Your task to perform on an android device: turn on the 24-hour format for clock Image 0: 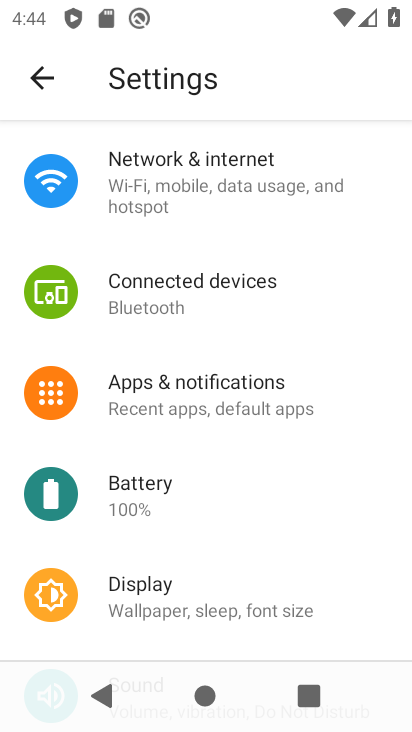
Step 0: press home button
Your task to perform on an android device: turn on the 24-hour format for clock Image 1: 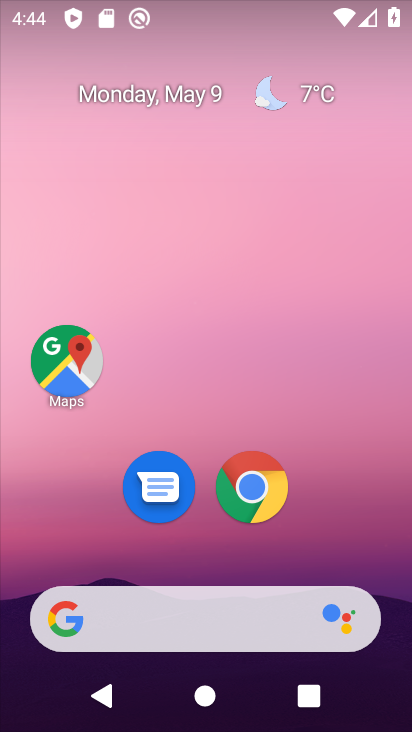
Step 1: drag from (205, 560) to (212, 29)
Your task to perform on an android device: turn on the 24-hour format for clock Image 2: 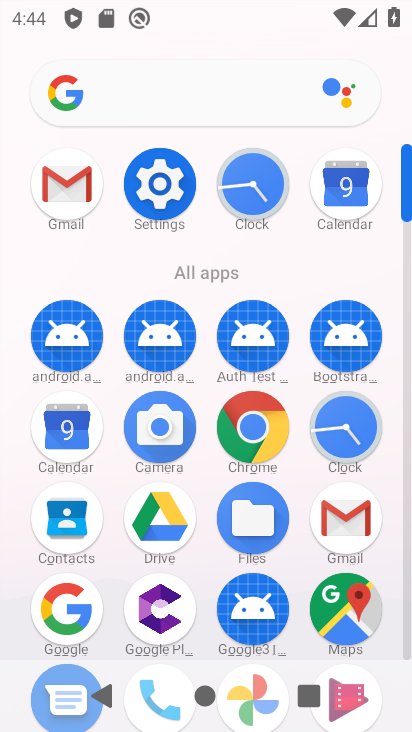
Step 2: click (336, 413)
Your task to perform on an android device: turn on the 24-hour format for clock Image 3: 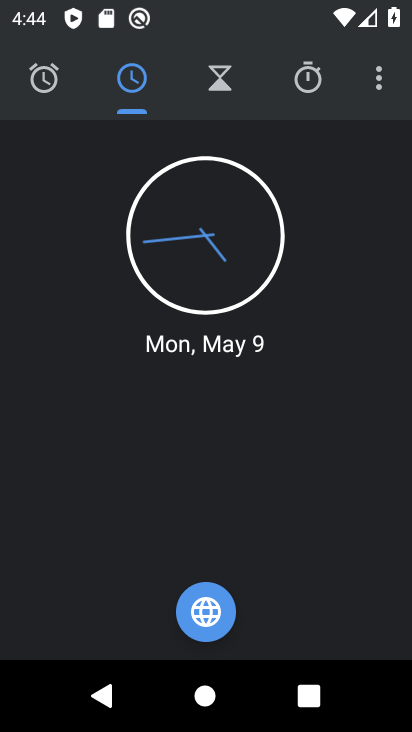
Step 3: click (379, 77)
Your task to perform on an android device: turn on the 24-hour format for clock Image 4: 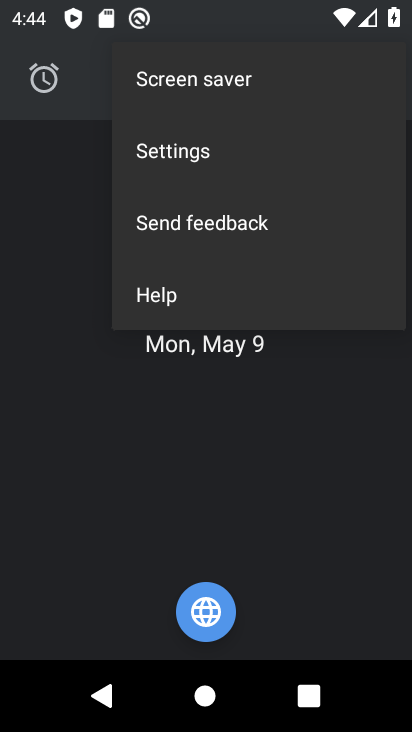
Step 4: click (172, 162)
Your task to perform on an android device: turn on the 24-hour format for clock Image 5: 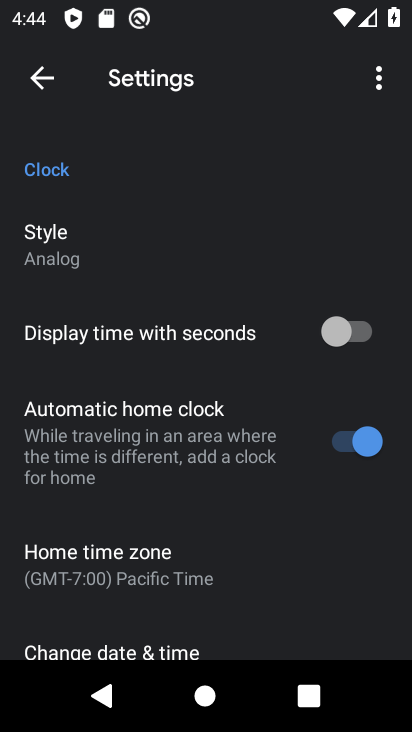
Step 5: drag from (197, 576) to (218, 326)
Your task to perform on an android device: turn on the 24-hour format for clock Image 6: 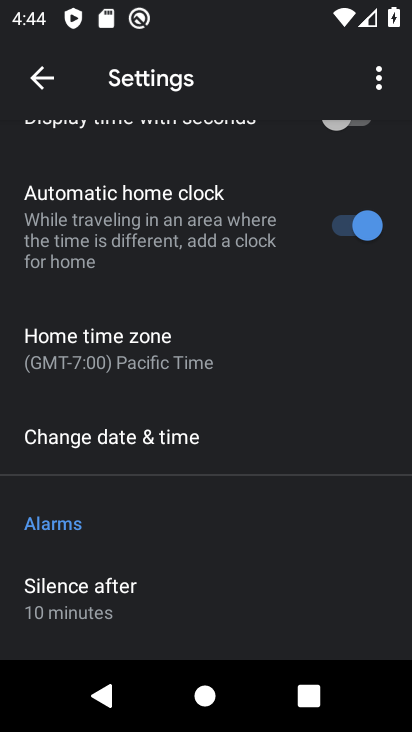
Step 6: click (201, 441)
Your task to perform on an android device: turn on the 24-hour format for clock Image 7: 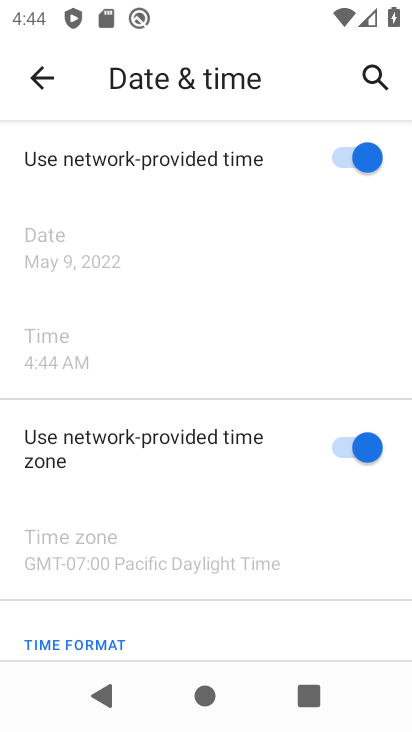
Step 7: drag from (210, 591) to (188, 245)
Your task to perform on an android device: turn on the 24-hour format for clock Image 8: 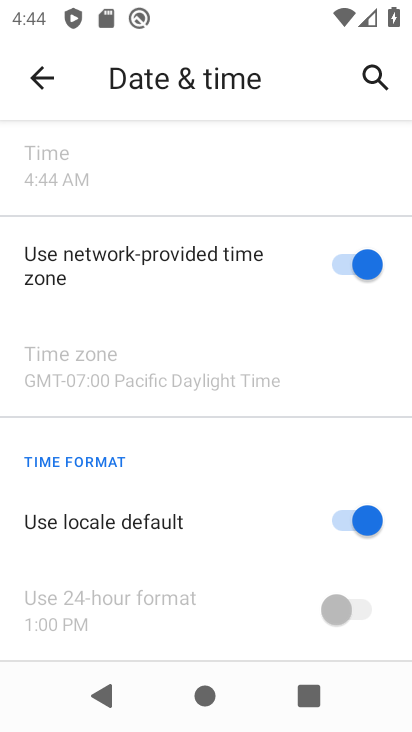
Step 8: click (338, 513)
Your task to perform on an android device: turn on the 24-hour format for clock Image 9: 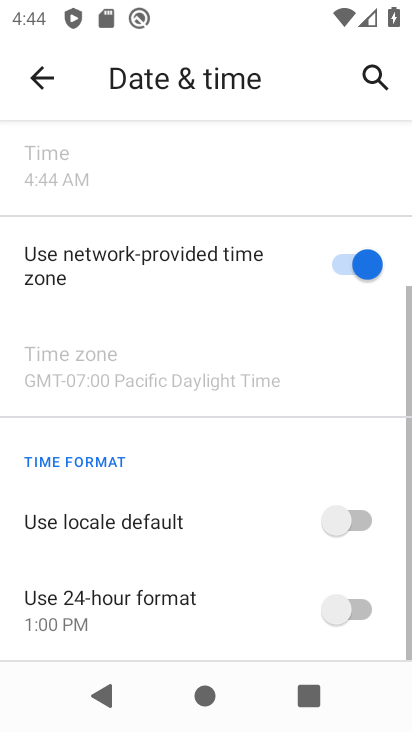
Step 9: click (340, 608)
Your task to perform on an android device: turn on the 24-hour format for clock Image 10: 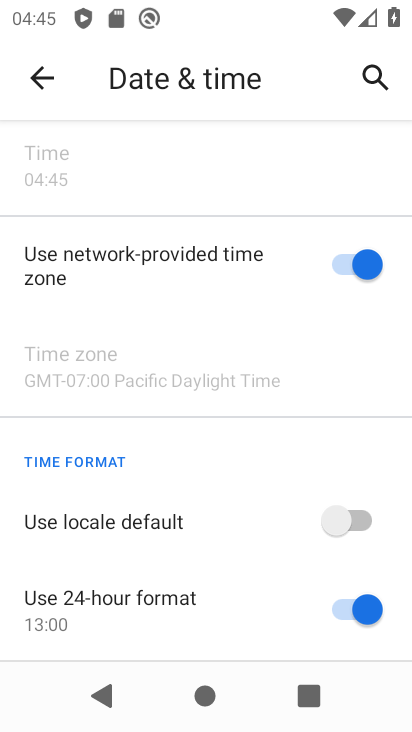
Step 10: task complete